Your task to perform on an android device: manage bookmarks in the chrome app Image 0: 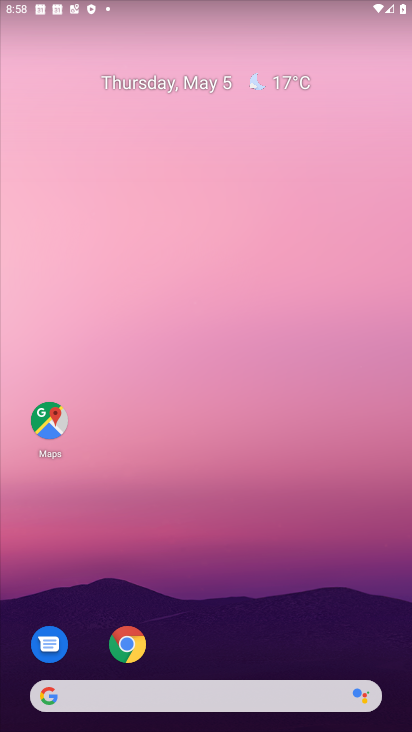
Step 0: drag from (171, 650) to (175, 36)
Your task to perform on an android device: manage bookmarks in the chrome app Image 1: 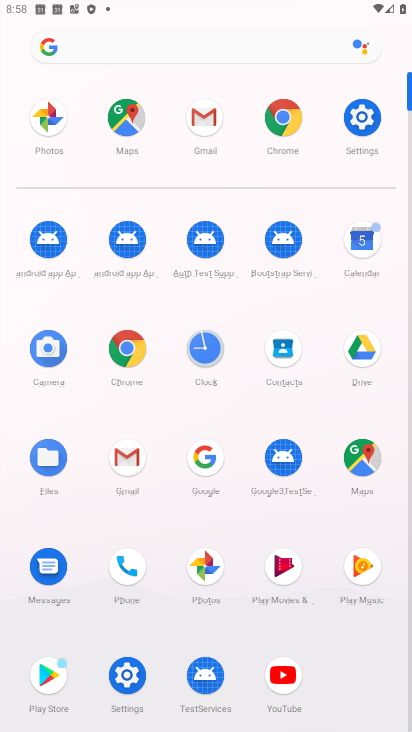
Step 1: click (125, 337)
Your task to perform on an android device: manage bookmarks in the chrome app Image 2: 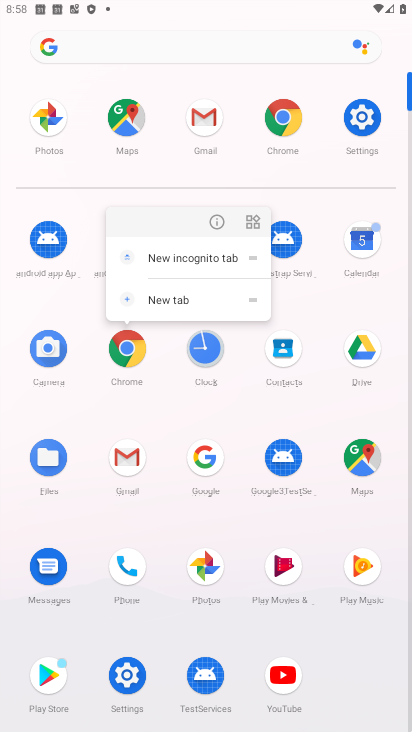
Step 2: click (195, 230)
Your task to perform on an android device: manage bookmarks in the chrome app Image 3: 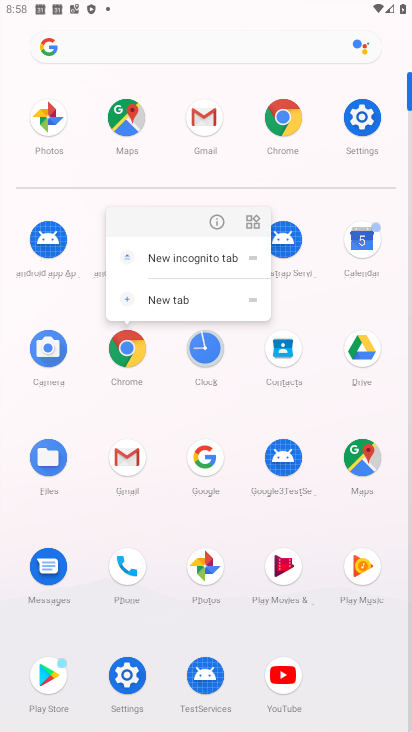
Step 3: click (209, 226)
Your task to perform on an android device: manage bookmarks in the chrome app Image 4: 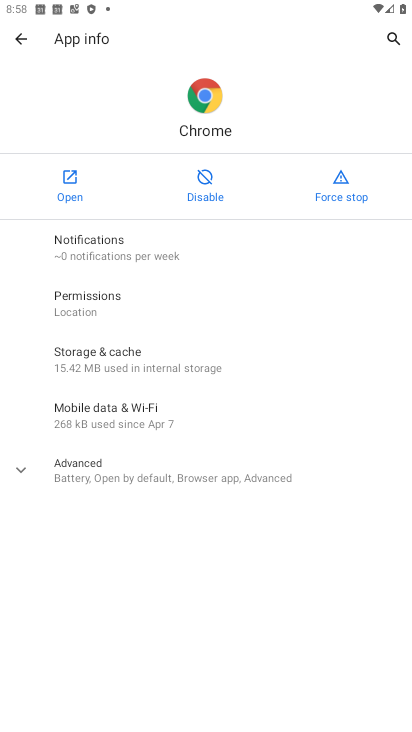
Step 4: click (84, 184)
Your task to perform on an android device: manage bookmarks in the chrome app Image 5: 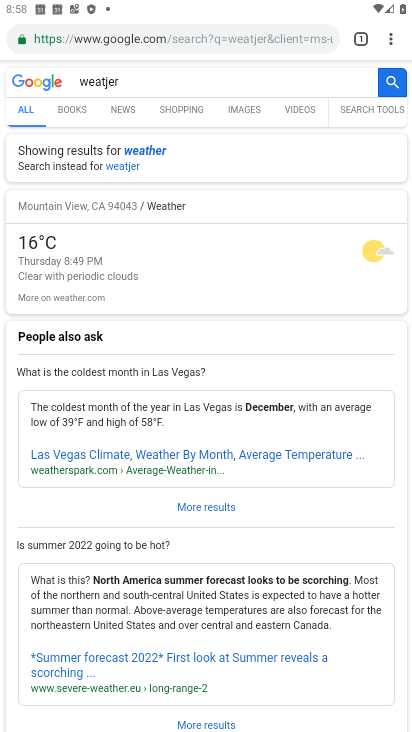
Step 5: drag from (222, 534) to (241, 192)
Your task to perform on an android device: manage bookmarks in the chrome app Image 6: 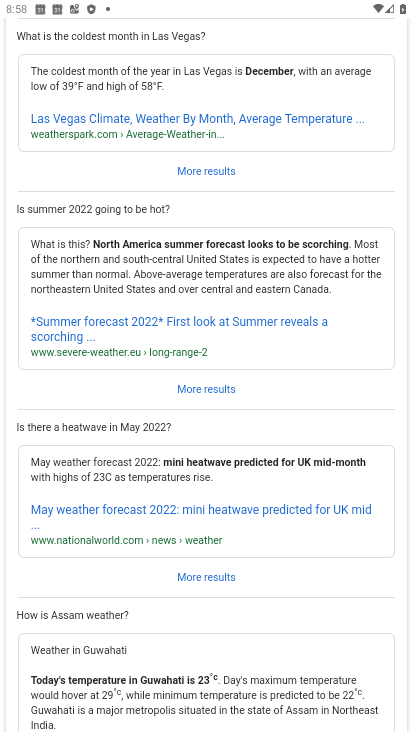
Step 6: drag from (178, 659) to (233, 246)
Your task to perform on an android device: manage bookmarks in the chrome app Image 7: 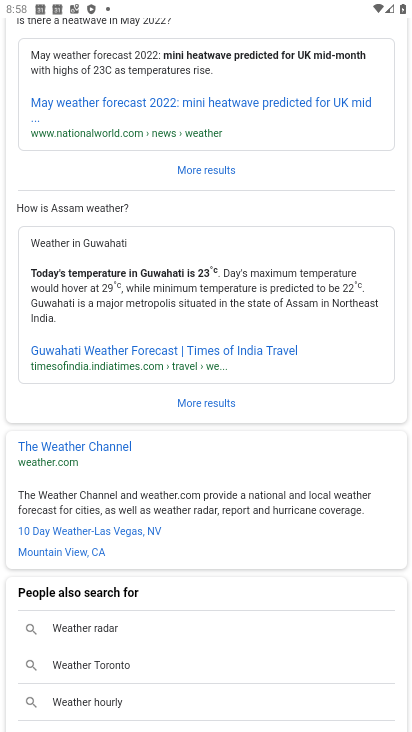
Step 7: drag from (218, 203) to (236, 689)
Your task to perform on an android device: manage bookmarks in the chrome app Image 8: 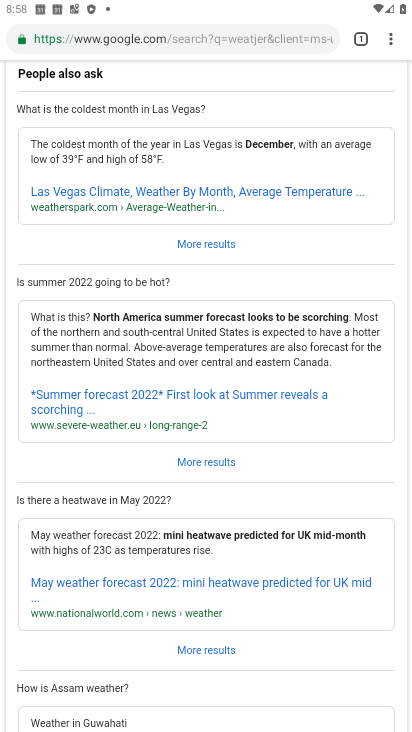
Step 8: drag from (395, 42) to (277, 148)
Your task to perform on an android device: manage bookmarks in the chrome app Image 9: 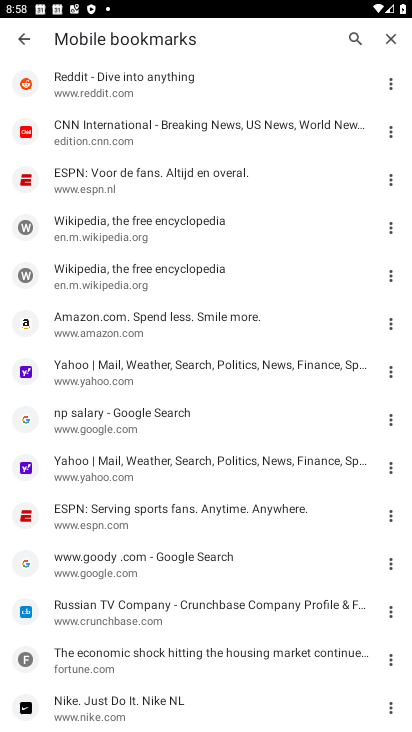
Step 9: drag from (204, 509) to (234, 204)
Your task to perform on an android device: manage bookmarks in the chrome app Image 10: 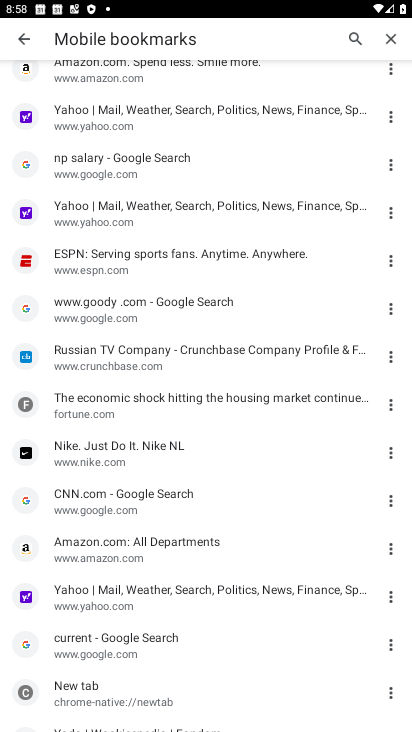
Step 10: click (392, 257)
Your task to perform on an android device: manage bookmarks in the chrome app Image 11: 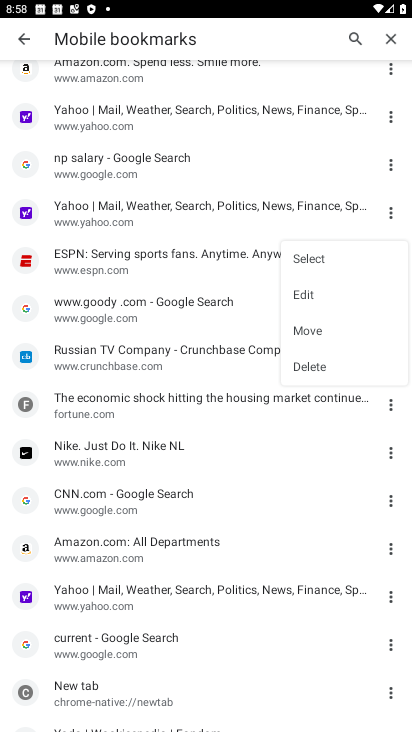
Step 11: click (313, 365)
Your task to perform on an android device: manage bookmarks in the chrome app Image 12: 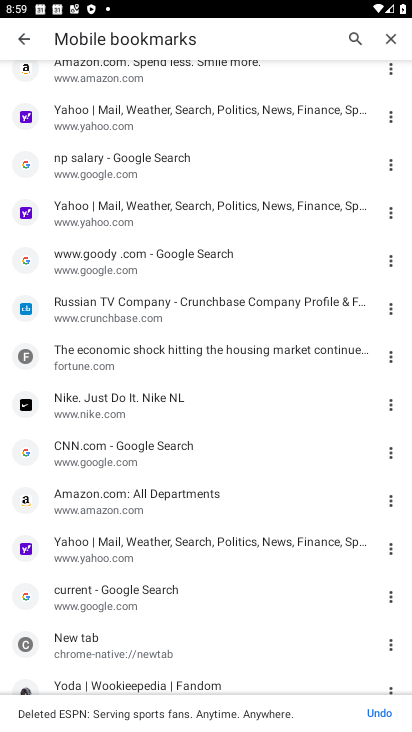
Step 12: task complete